Your task to perform on an android device: What's the weather? Image 0: 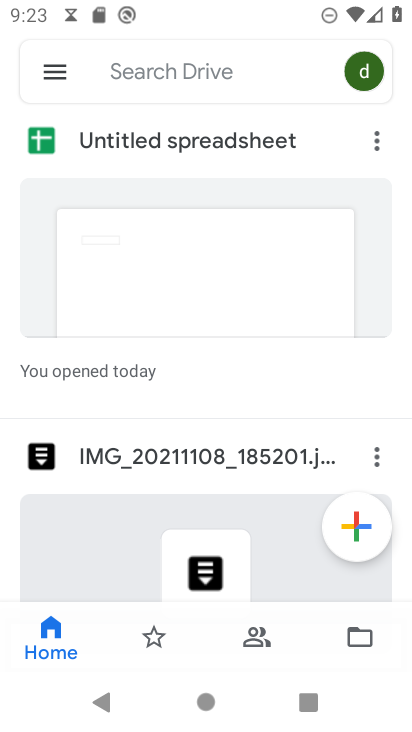
Step 0: press home button
Your task to perform on an android device: What's the weather? Image 1: 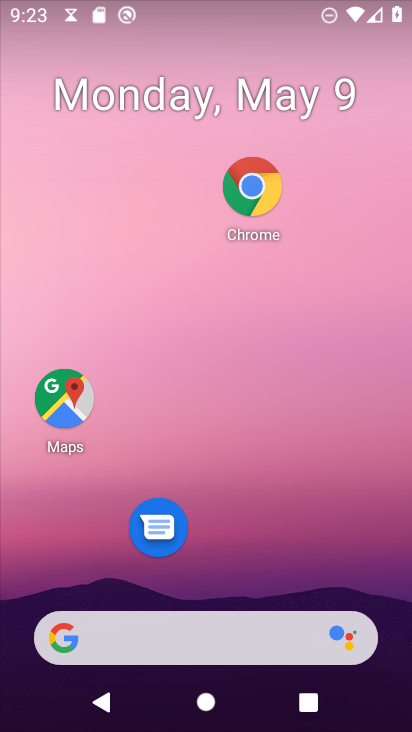
Step 1: drag from (210, 413) to (240, 147)
Your task to perform on an android device: What's the weather? Image 2: 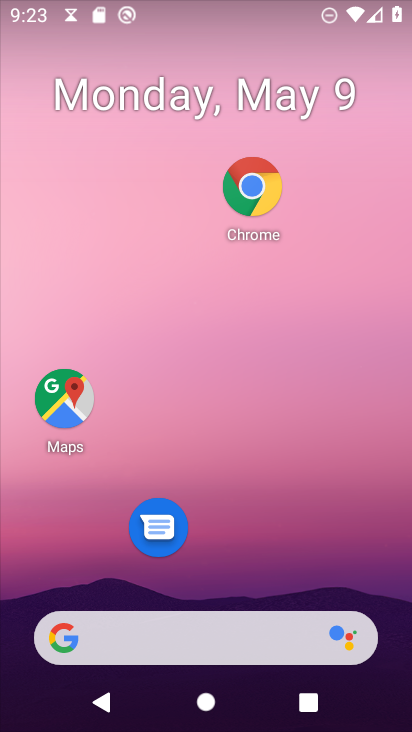
Step 2: drag from (201, 581) to (221, 27)
Your task to perform on an android device: What's the weather? Image 3: 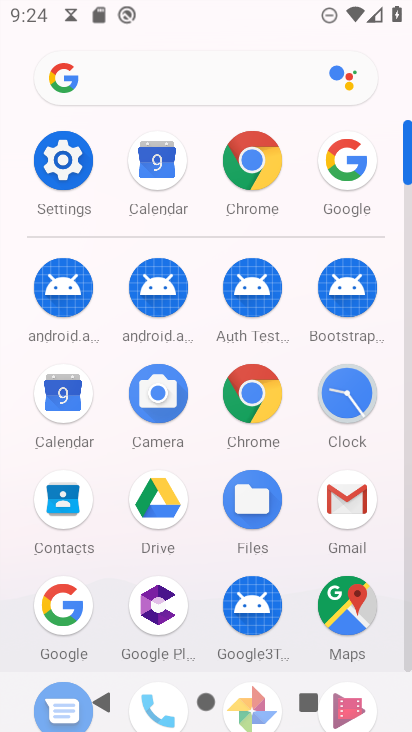
Step 3: click (55, 595)
Your task to perform on an android device: What's the weather? Image 4: 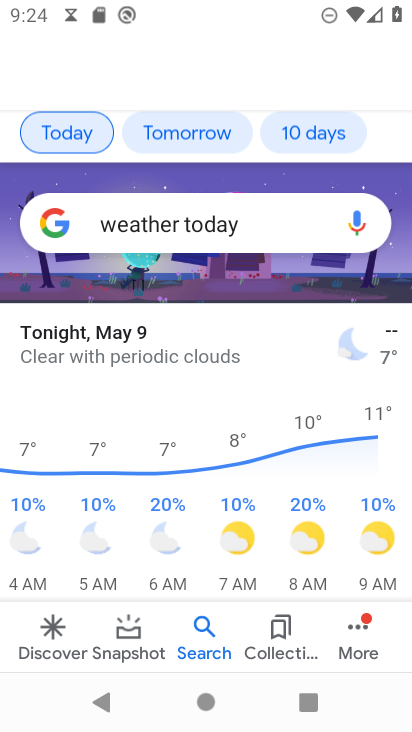
Step 4: task complete